Your task to perform on an android device: What's the weather going to be this weekend? Image 0: 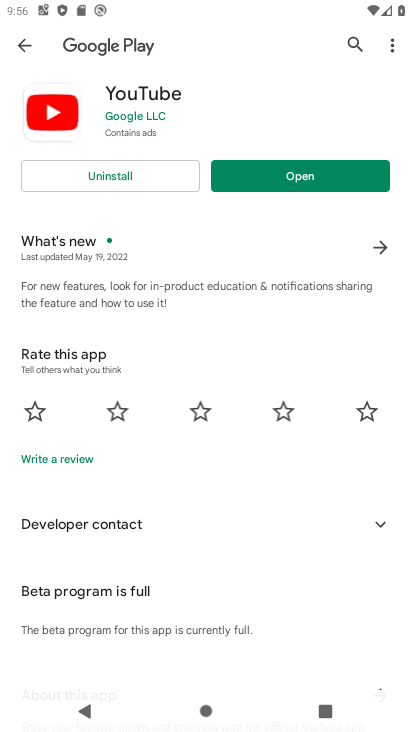
Step 0: press home button
Your task to perform on an android device: What's the weather going to be this weekend? Image 1: 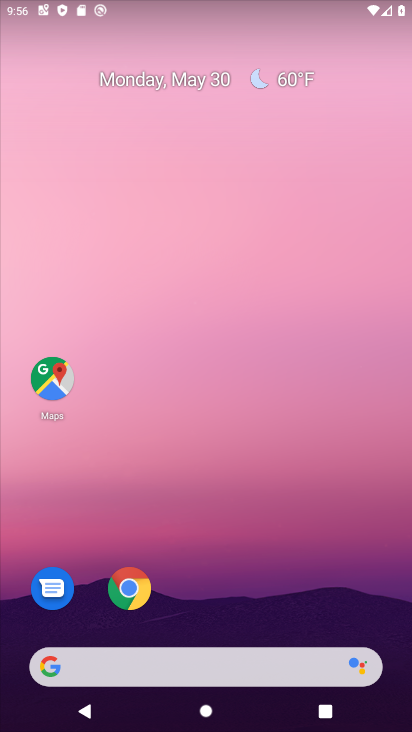
Step 1: click (284, 78)
Your task to perform on an android device: What's the weather going to be this weekend? Image 2: 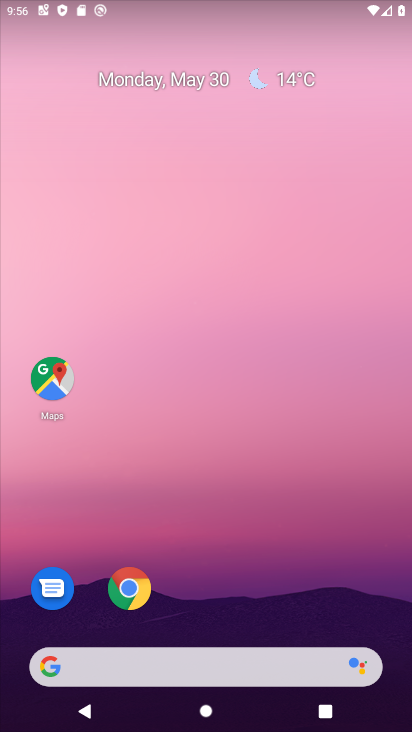
Step 2: click (283, 78)
Your task to perform on an android device: What's the weather going to be this weekend? Image 3: 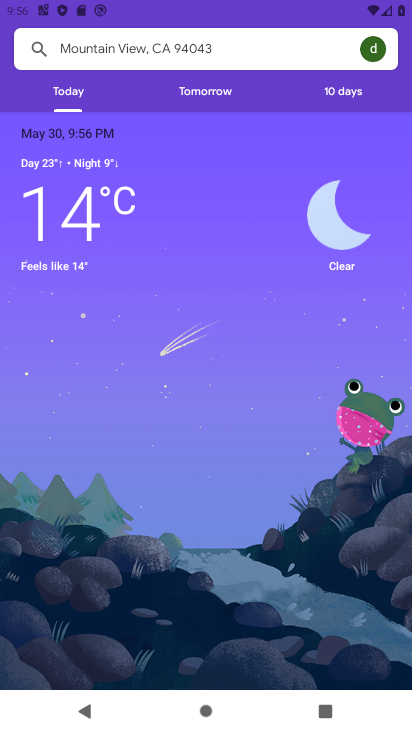
Step 3: click (353, 97)
Your task to perform on an android device: What's the weather going to be this weekend? Image 4: 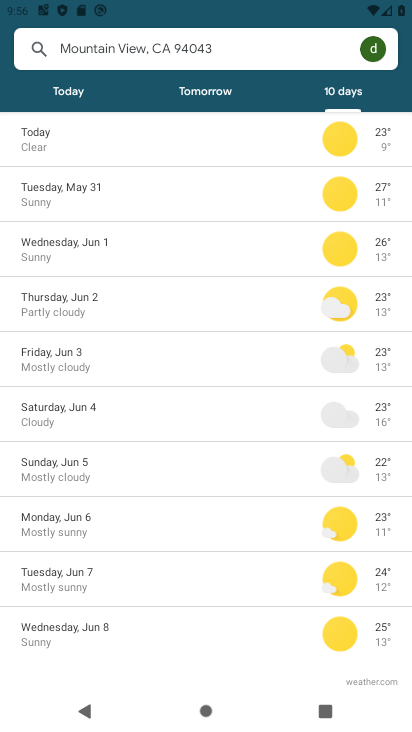
Step 4: task complete